Your task to perform on an android device: snooze an email in the gmail app Image 0: 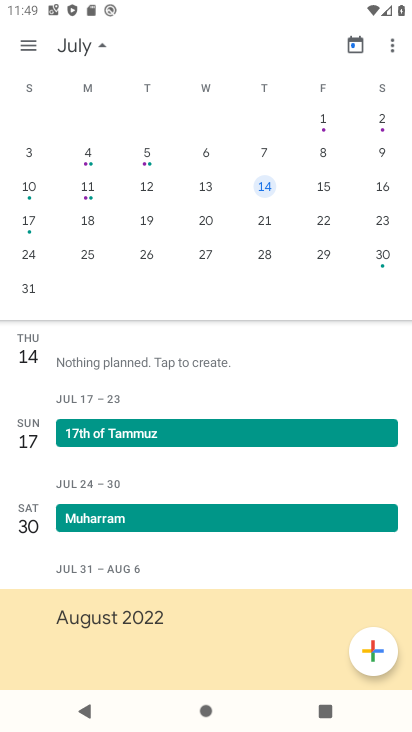
Step 0: drag from (258, 542) to (256, 490)
Your task to perform on an android device: snooze an email in the gmail app Image 1: 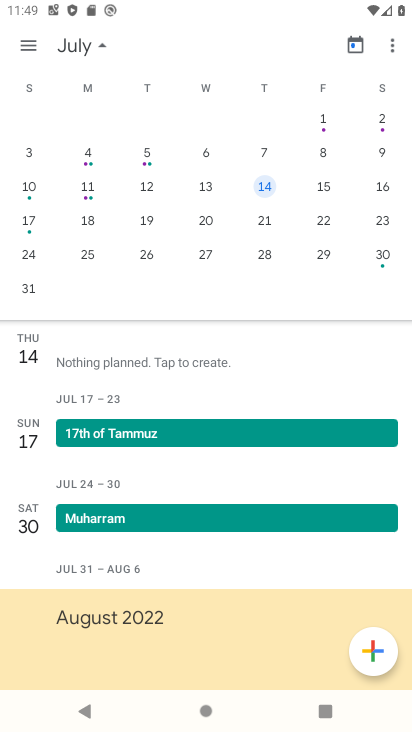
Step 1: press home button
Your task to perform on an android device: snooze an email in the gmail app Image 2: 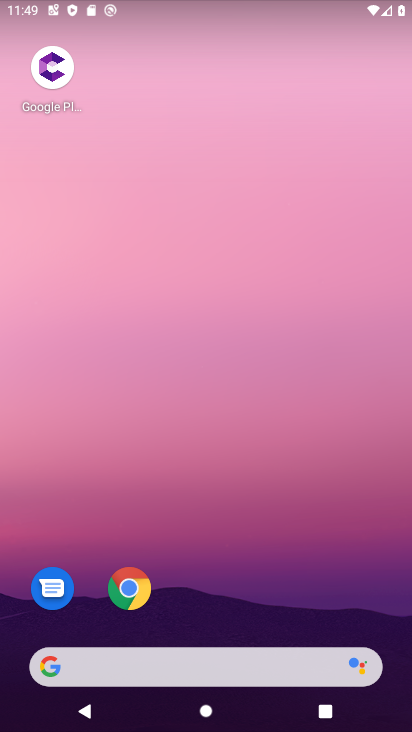
Step 2: drag from (341, 574) to (234, 122)
Your task to perform on an android device: snooze an email in the gmail app Image 3: 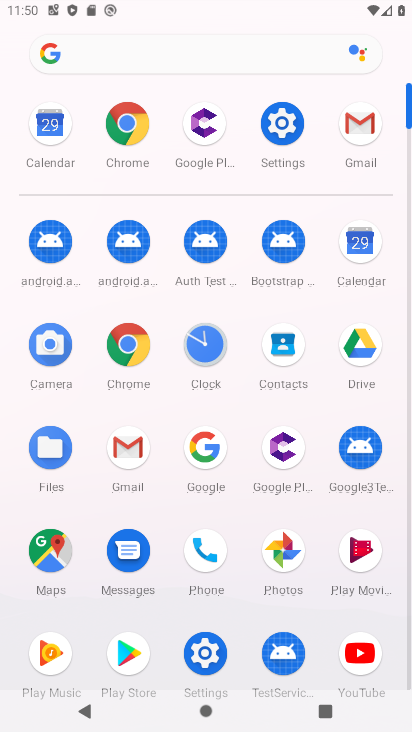
Step 3: click (363, 130)
Your task to perform on an android device: snooze an email in the gmail app Image 4: 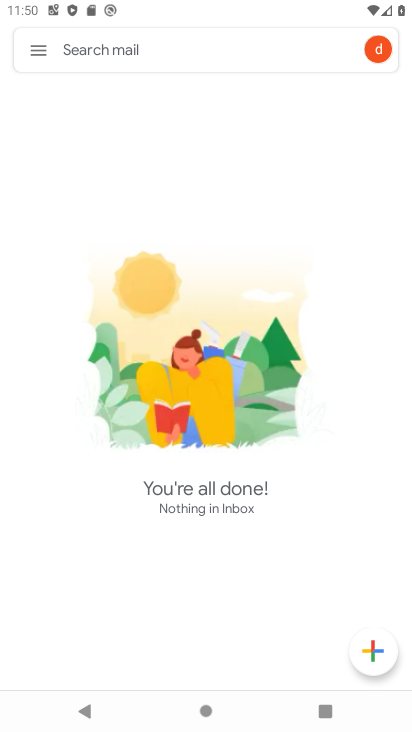
Step 4: click (36, 58)
Your task to perform on an android device: snooze an email in the gmail app Image 5: 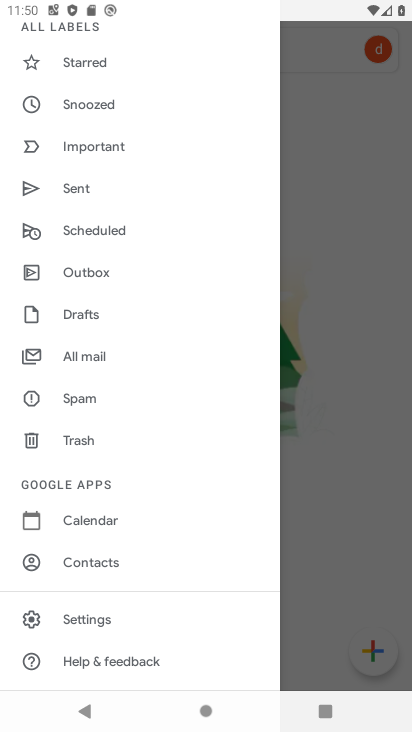
Step 5: drag from (194, 272) to (178, 705)
Your task to perform on an android device: snooze an email in the gmail app Image 6: 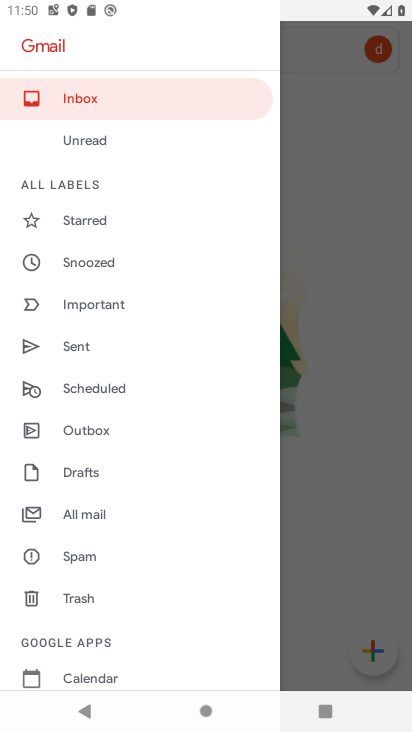
Step 6: click (109, 105)
Your task to perform on an android device: snooze an email in the gmail app Image 7: 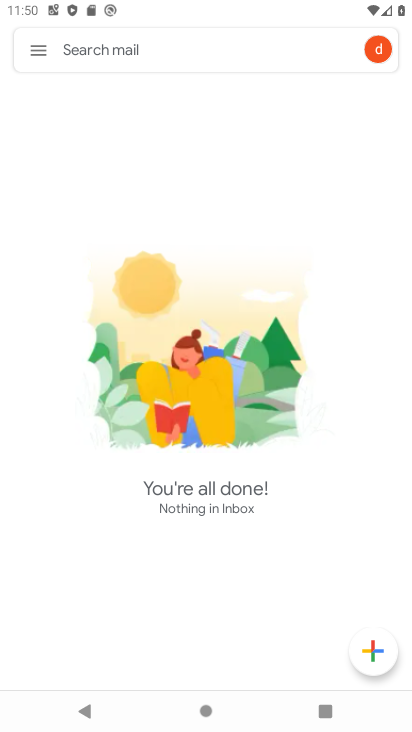
Step 7: task complete